Your task to perform on an android device: Go to Yahoo.com Image 0: 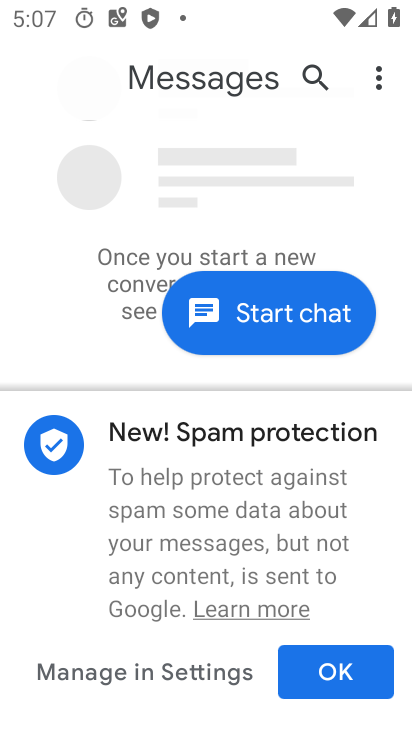
Step 0: press home button
Your task to perform on an android device: Go to Yahoo.com Image 1: 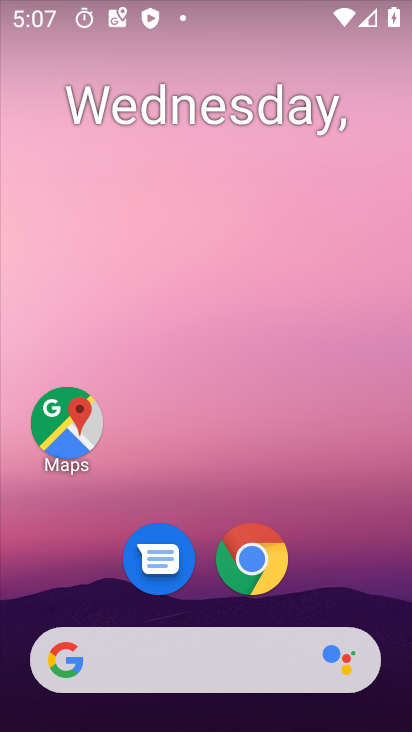
Step 1: click (258, 555)
Your task to perform on an android device: Go to Yahoo.com Image 2: 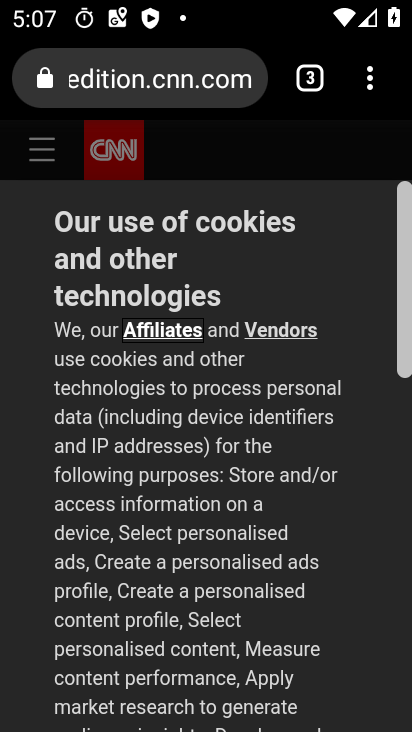
Step 2: click (312, 77)
Your task to perform on an android device: Go to Yahoo.com Image 3: 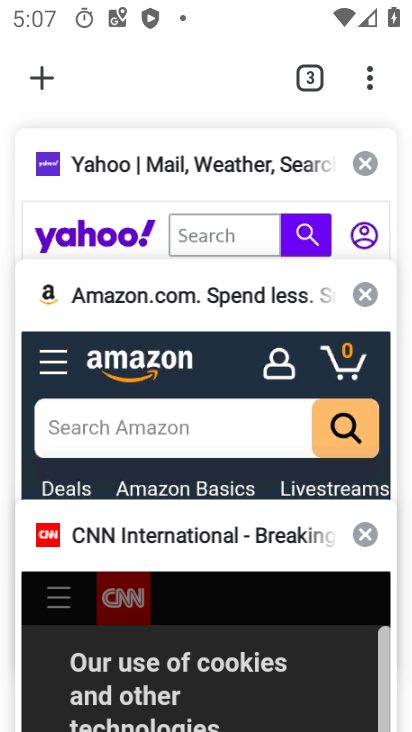
Step 3: click (39, 73)
Your task to perform on an android device: Go to Yahoo.com Image 4: 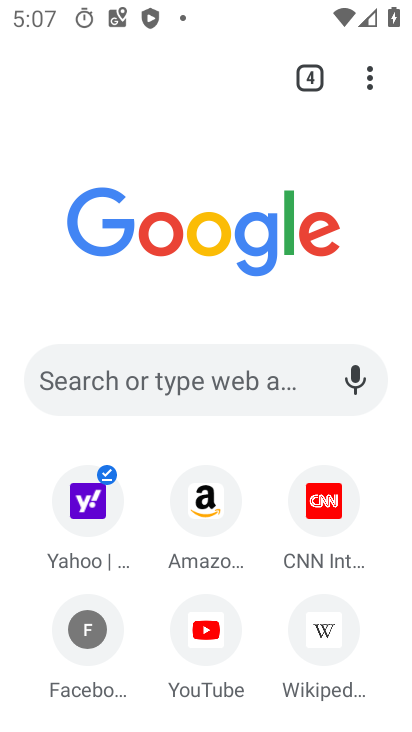
Step 4: click (100, 496)
Your task to perform on an android device: Go to Yahoo.com Image 5: 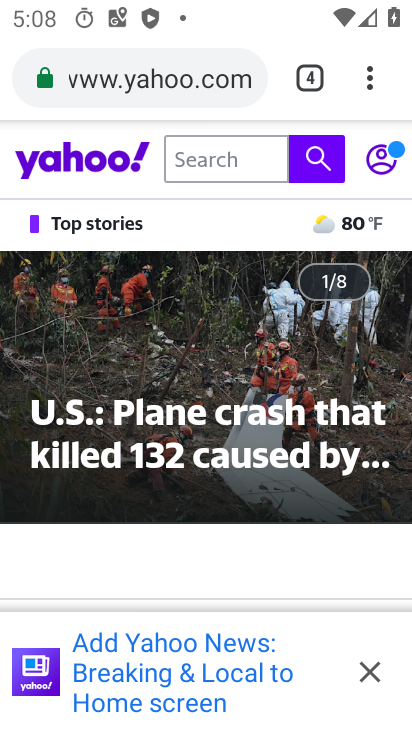
Step 5: task complete